Your task to perform on an android device: turn on wifi Image 0: 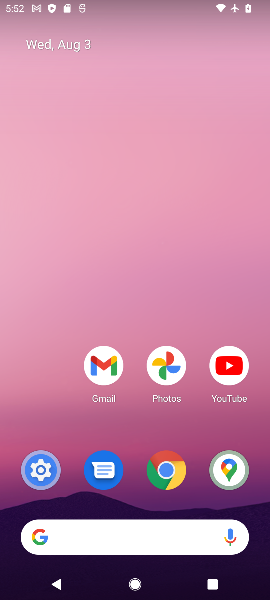
Step 0: drag from (133, 416) to (171, 72)
Your task to perform on an android device: turn on wifi Image 1: 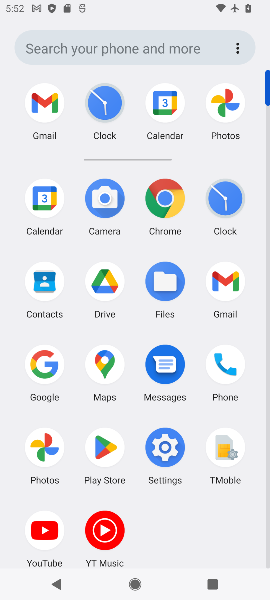
Step 1: click (165, 446)
Your task to perform on an android device: turn on wifi Image 2: 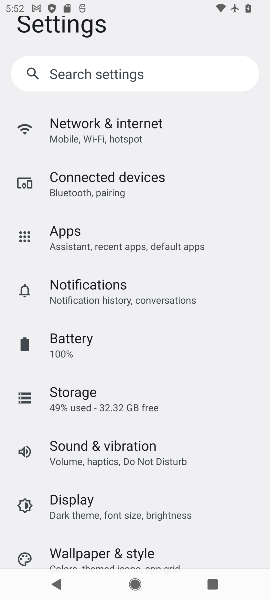
Step 2: click (156, 130)
Your task to perform on an android device: turn on wifi Image 3: 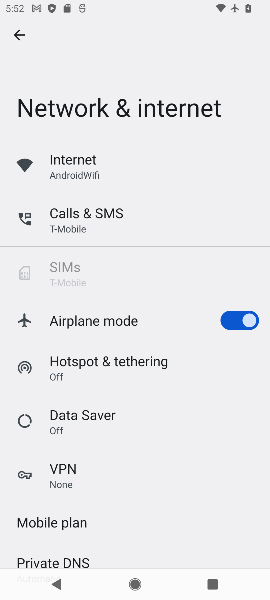
Step 3: click (107, 166)
Your task to perform on an android device: turn on wifi Image 4: 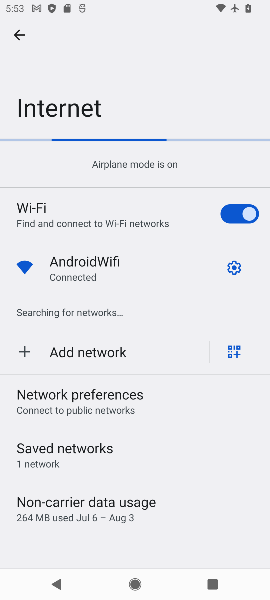
Step 4: task complete